Your task to perform on an android device: Go to display settings Image 0: 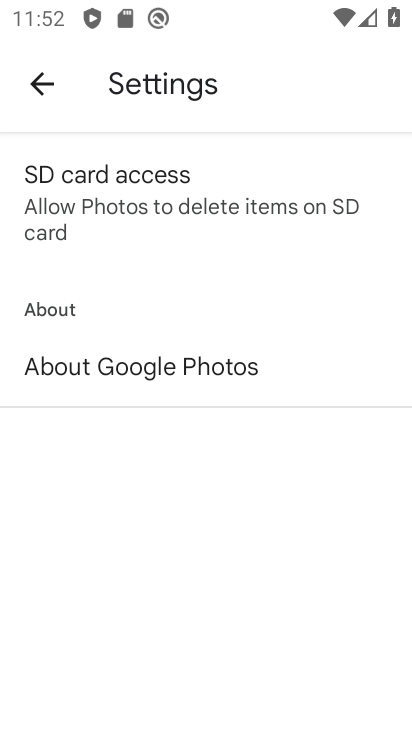
Step 0: press home button
Your task to perform on an android device: Go to display settings Image 1: 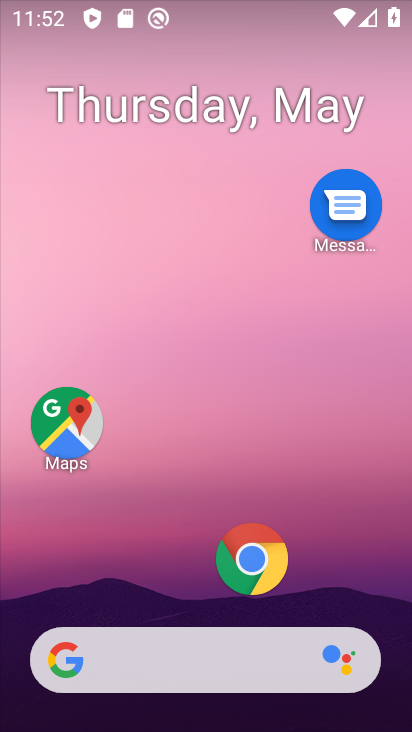
Step 1: drag from (185, 626) to (279, 62)
Your task to perform on an android device: Go to display settings Image 2: 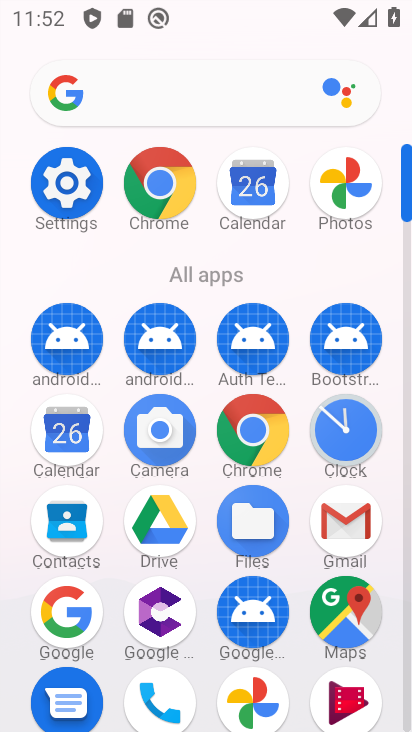
Step 2: click (62, 206)
Your task to perform on an android device: Go to display settings Image 3: 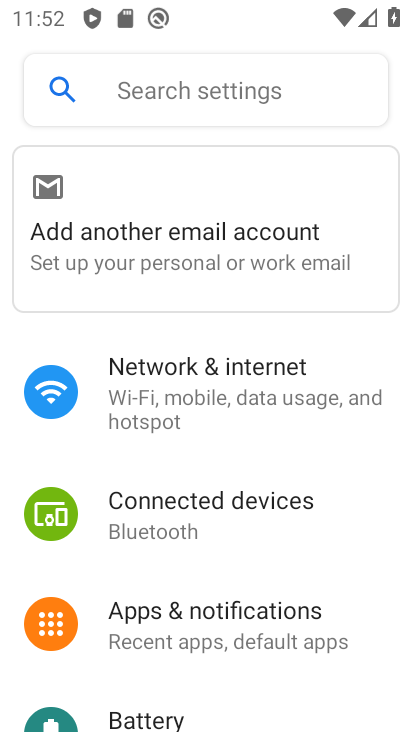
Step 3: drag from (187, 558) to (215, 226)
Your task to perform on an android device: Go to display settings Image 4: 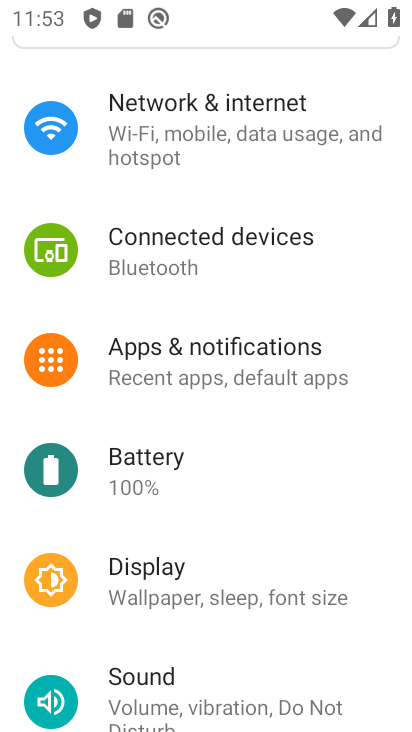
Step 4: click (184, 579)
Your task to perform on an android device: Go to display settings Image 5: 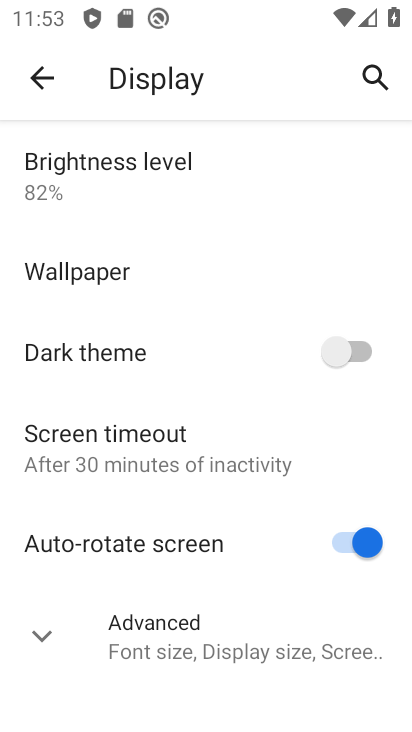
Step 5: task complete